Your task to perform on an android device: What's the weather today? Image 0: 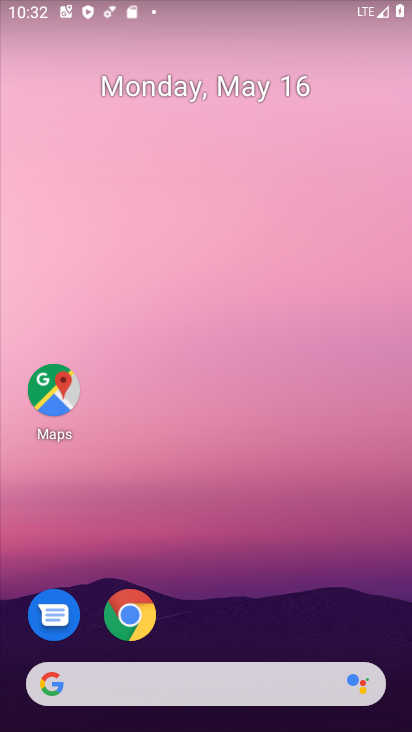
Step 0: drag from (250, 492) to (248, 310)
Your task to perform on an android device: What's the weather today? Image 1: 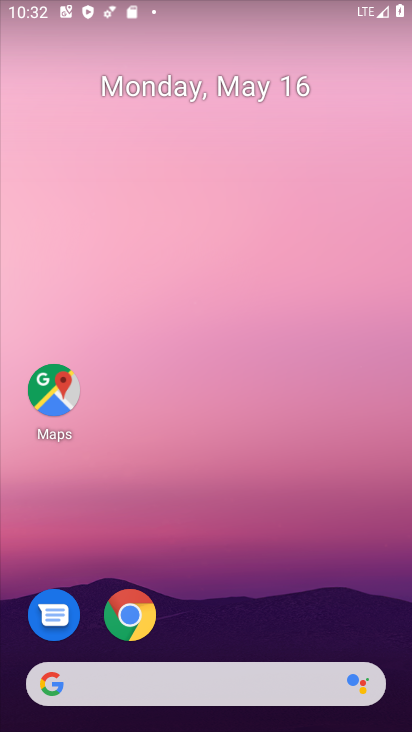
Step 1: drag from (258, 621) to (313, 39)
Your task to perform on an android device: What's the weather today? Image 2: 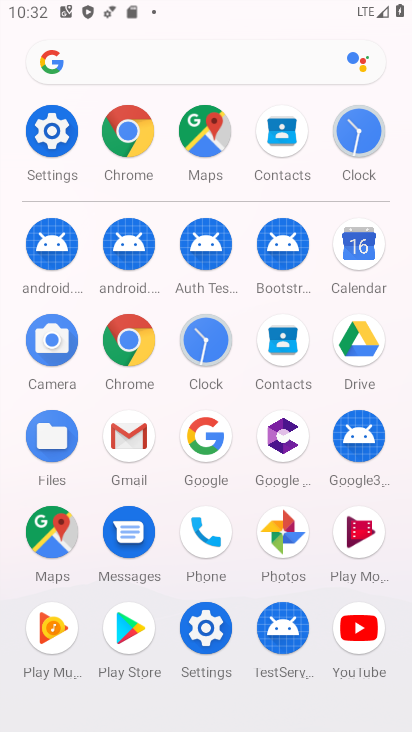
Step 2: click (201, 468)
Your task to perform on an android device: What's the weather today? Image 3: 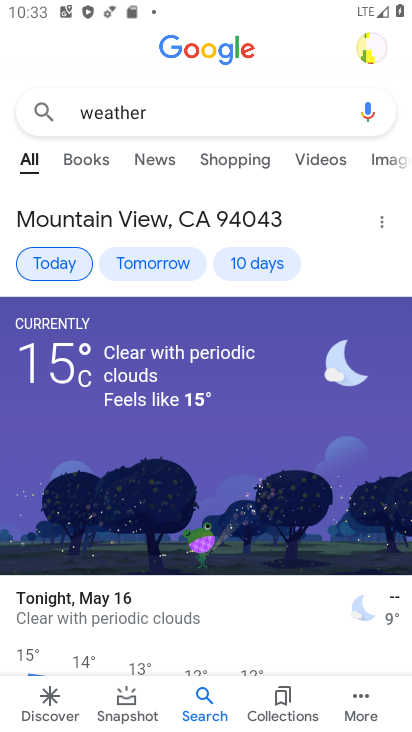
Step 3: task complete